Your task to perform on an android device: Add "macbook pro 13 inch" to the cart on bestbuy.com, then select checkout. Image 0: 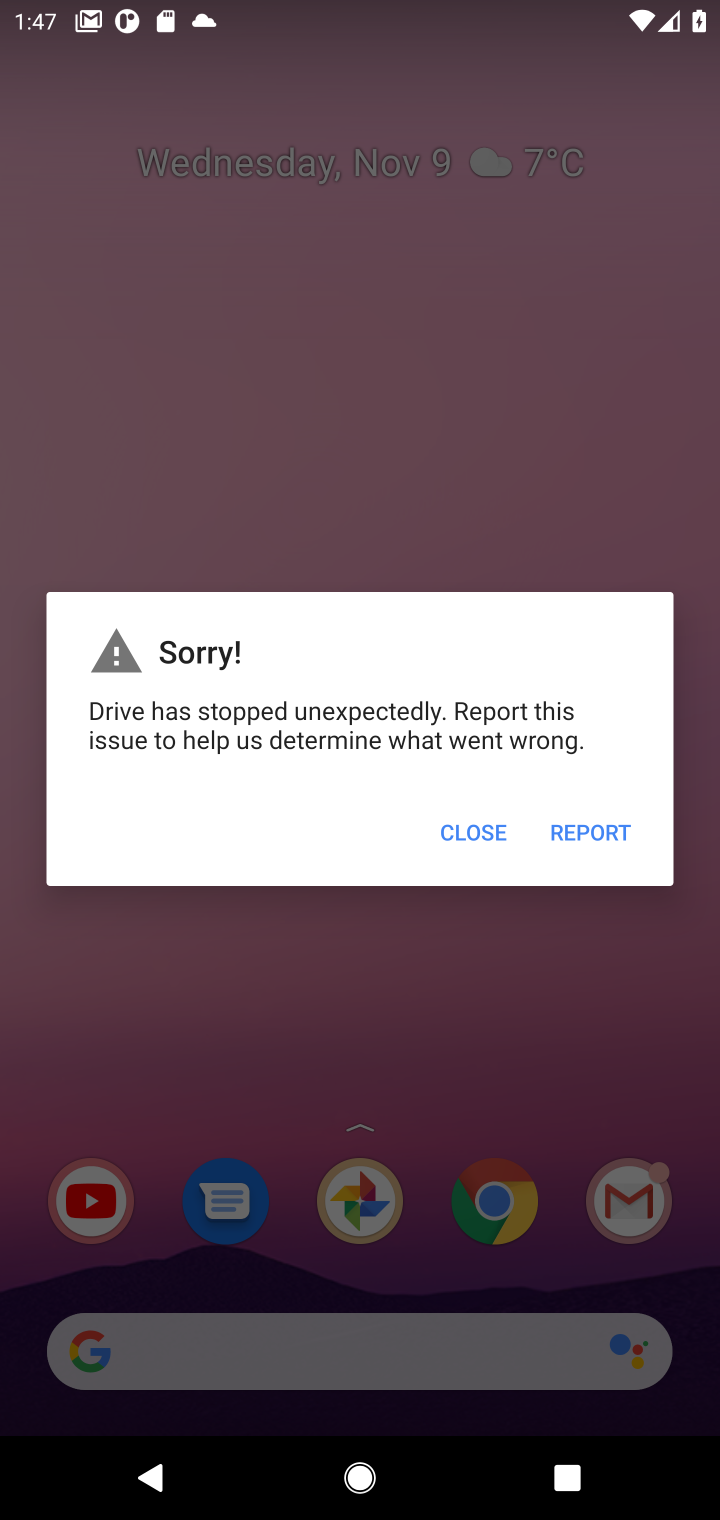
Step 0: press home button
Your task to perform on an android device: Add "macbook pro 13 inch" to the cart on bestbuy.com, then select checkout. Image 1: 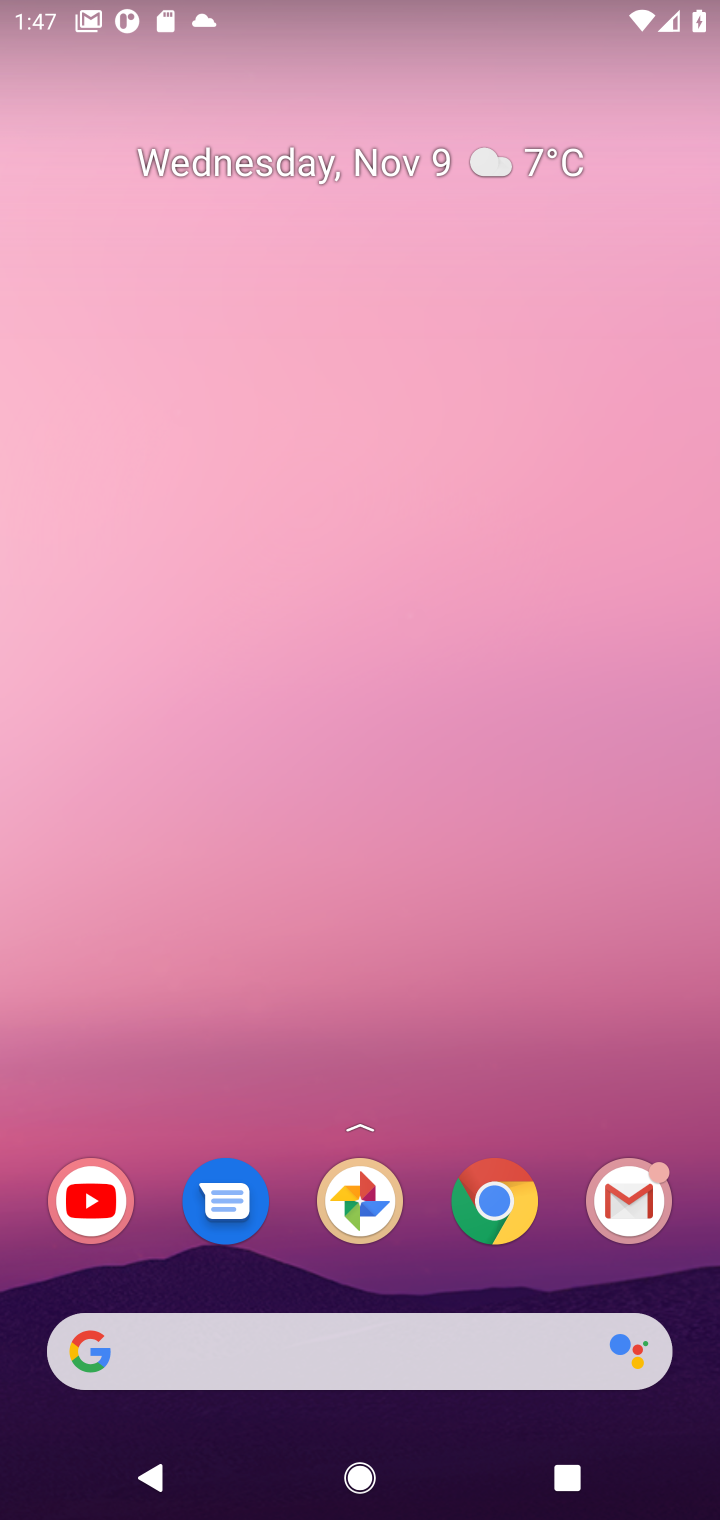
Step 1: click (299, 1352)
Your task to perform on an android device: Add "macbook pro 13 inch" to the cart on bestbuy.com, then select checkout. Image 2: 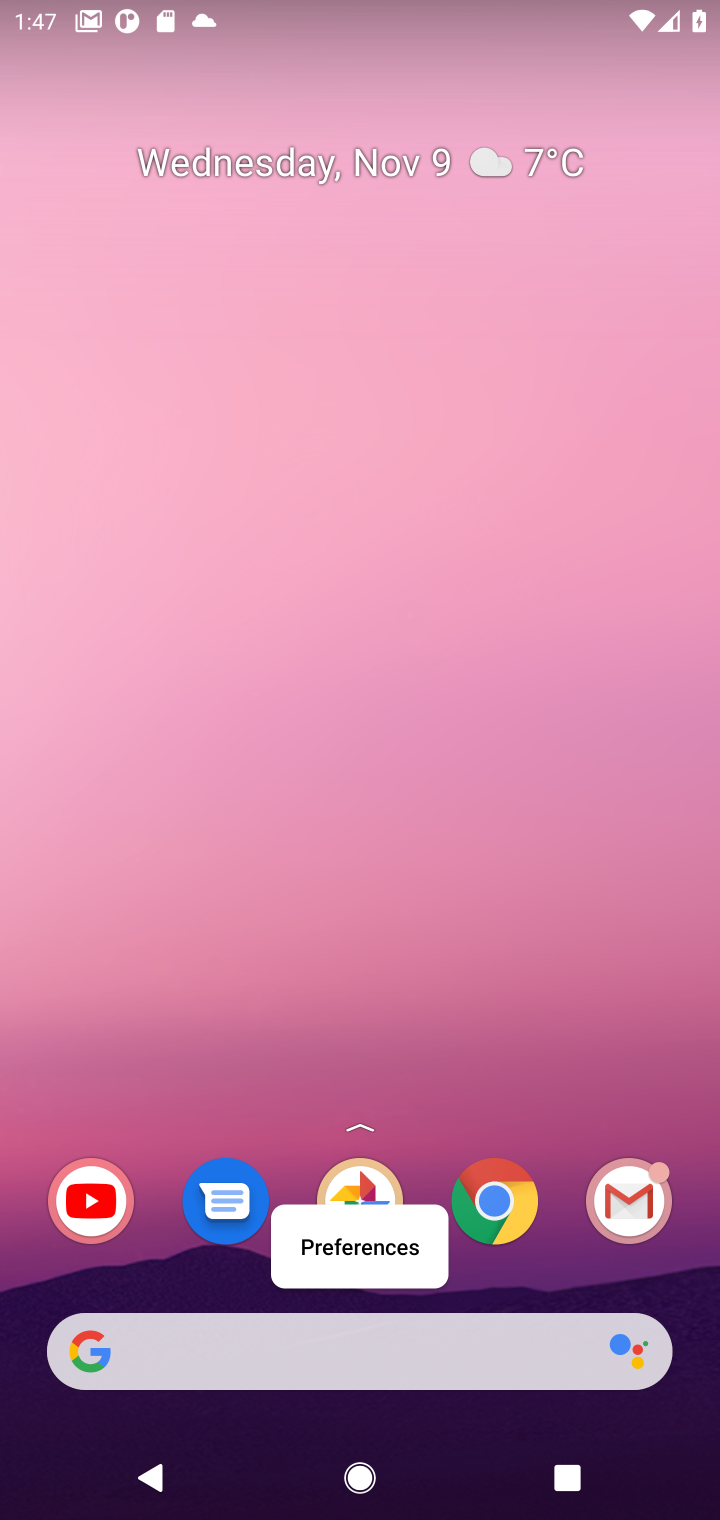
Step 2: click (351, 1362)
Your task to perform on an android device: Add "macbook pro 13 inch" to the cart on bestbuy.com, then select checkout. Image 3: 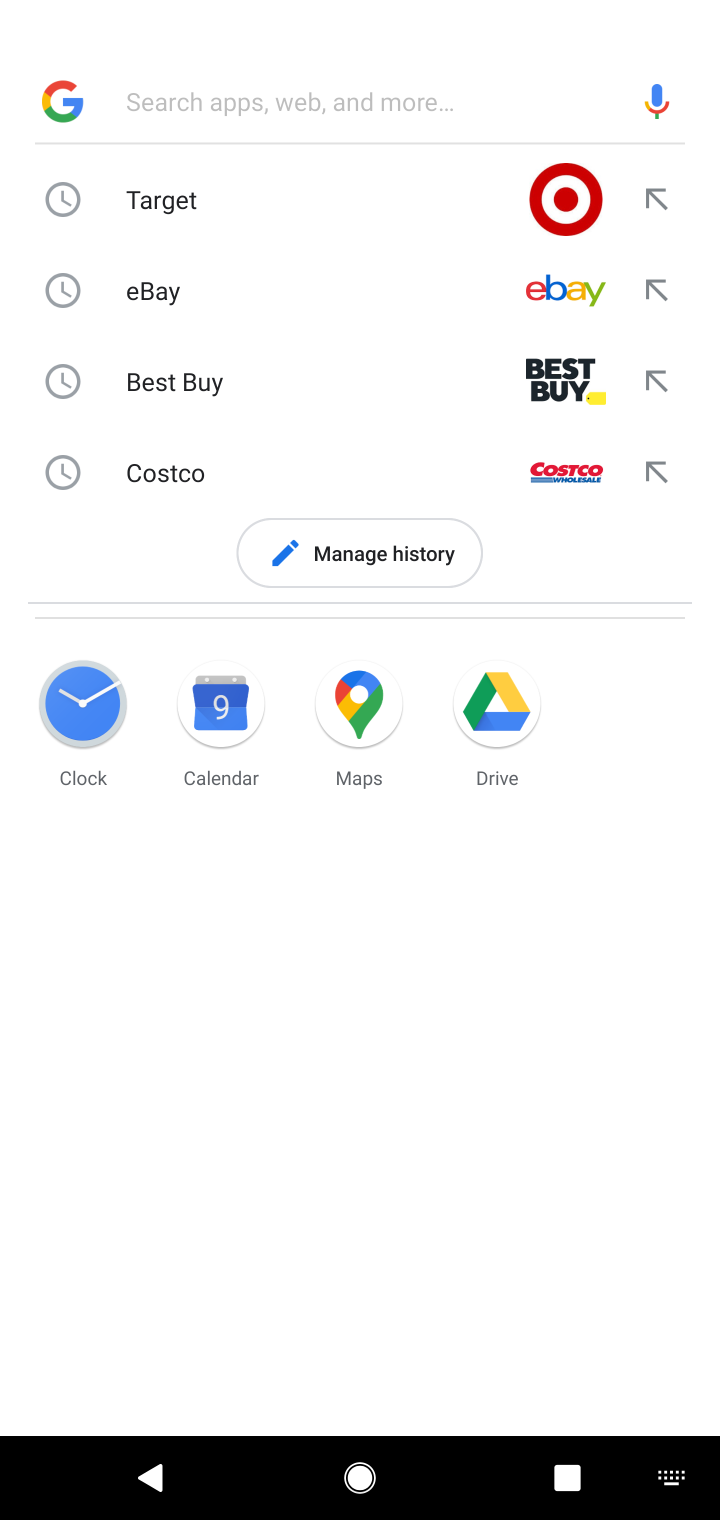
Step 3: type "bestbuy.com"
Your task to perform on an android device: Add "macbook pro 13 inch" to the cart on bestbuy.com, then select checkout. Image 4: 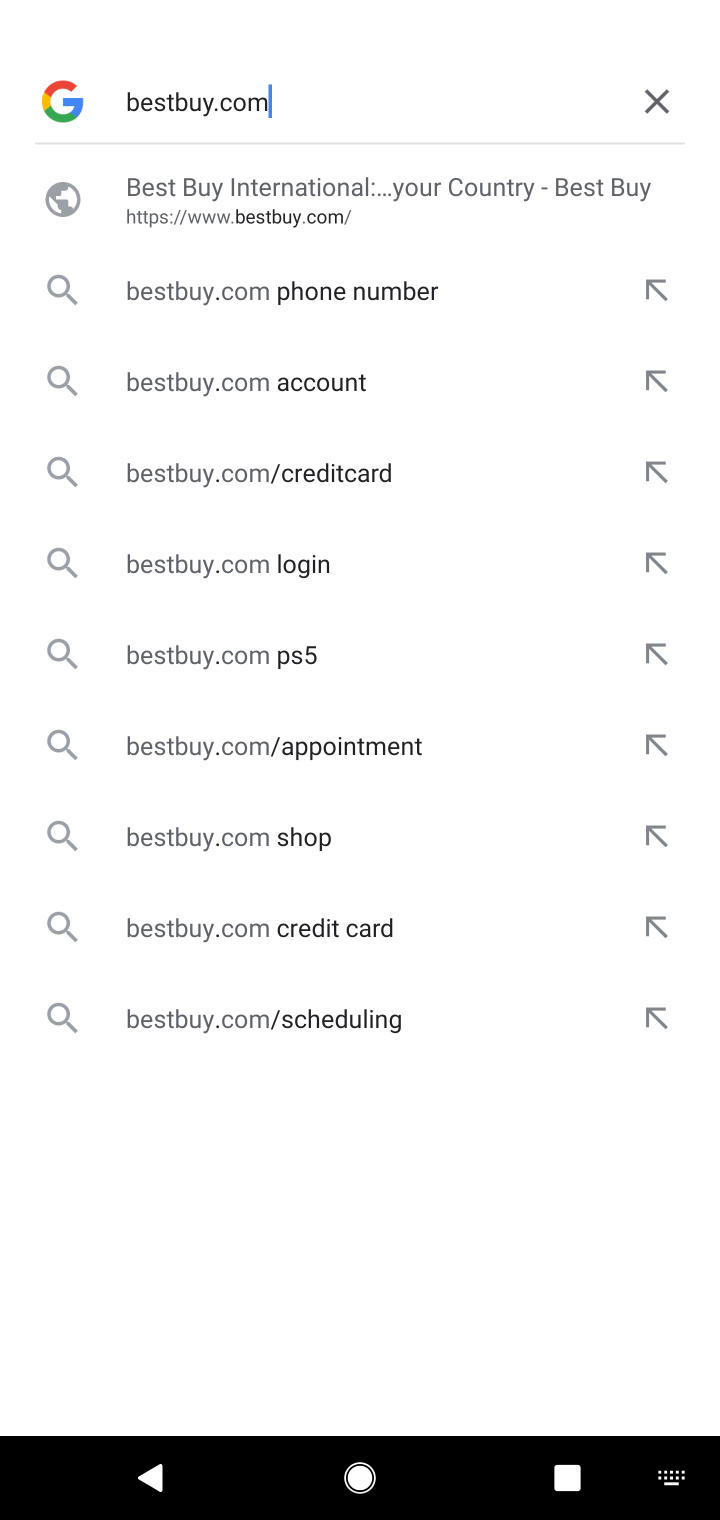
Step 4: click (228, 211)
Your task to perform on an android device: Add "macbook pro 13 inch" to the cart on bestbuy.com, then select checkout. Image 5: 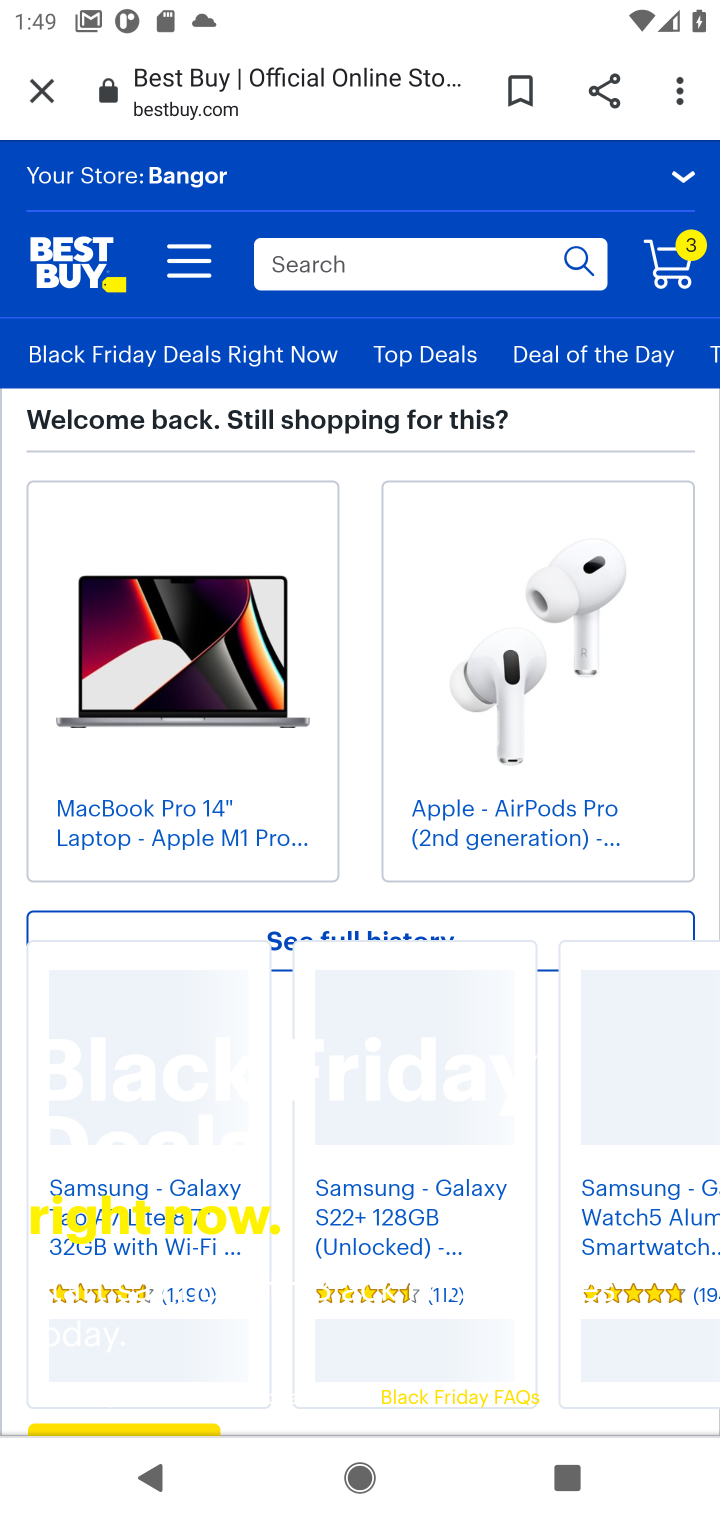
Step 5: click (341, 263)
Your task to perform on an android device: Add "macbook pro 13 inch" to the cart on bestbuy.com, then select checkout. Image 6: 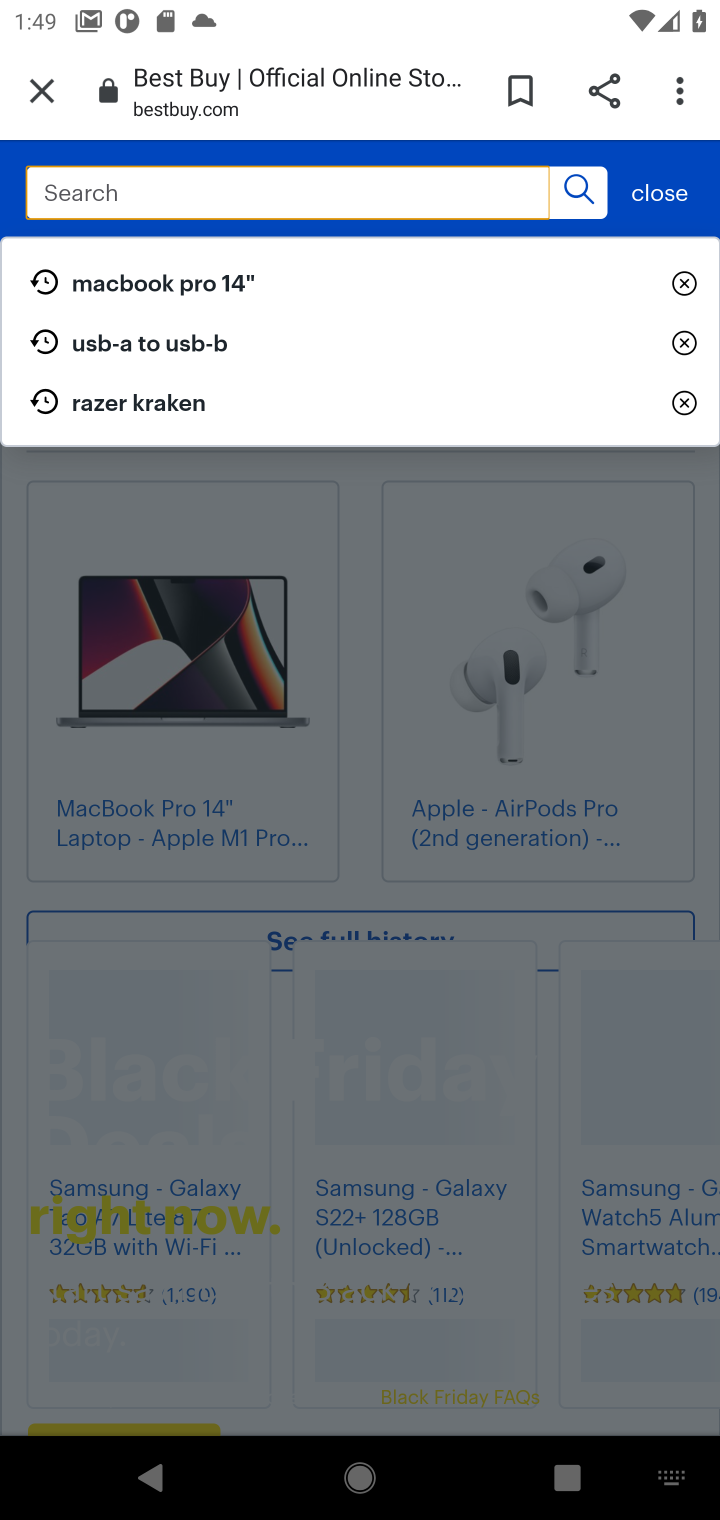
Step 6: type "macbook pro 13 inch"
Your task to perform on an android device: Add "macbook pro 13 inch" to the cart on bestbuy.com, then select checkout. Image 7: 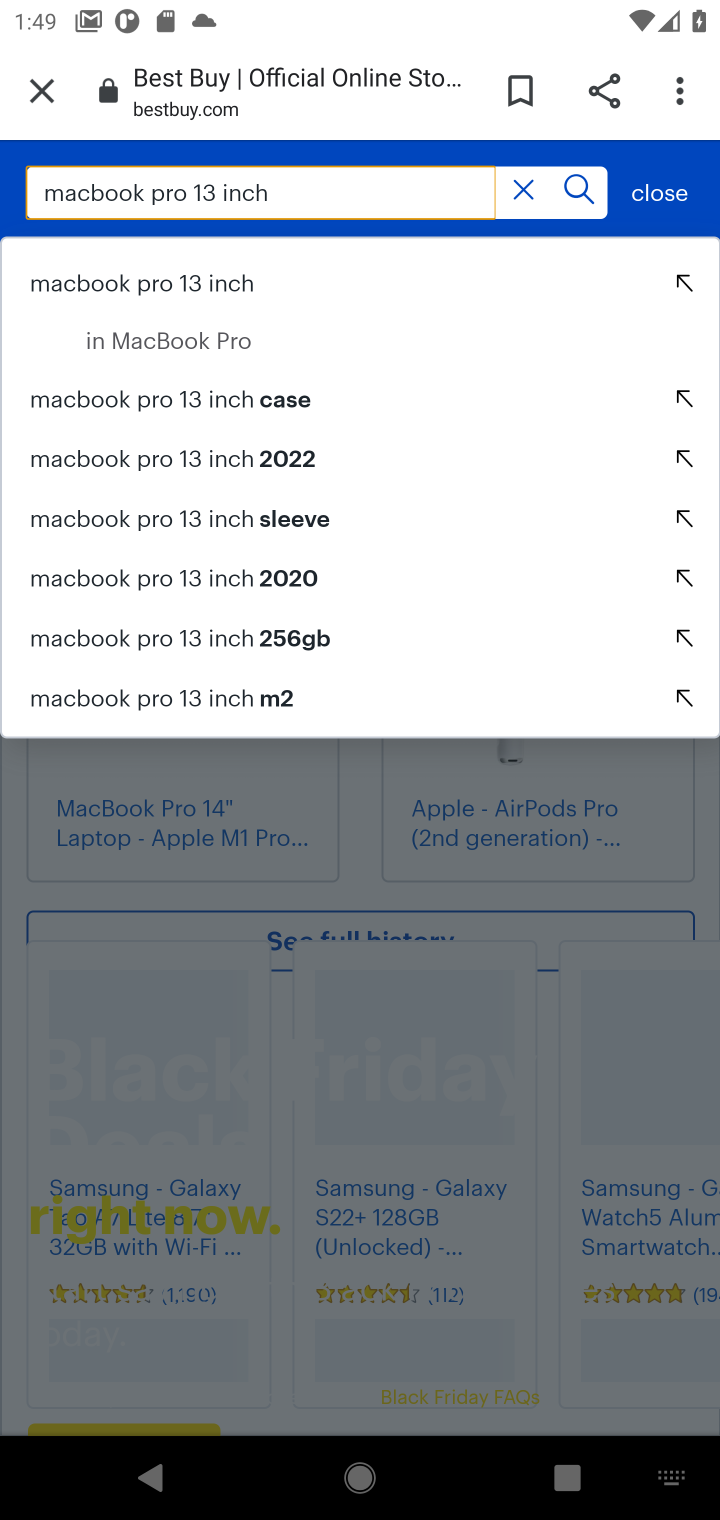
Step 7: click (200, 279)
Your task to perform on an android device: Add "macbook pro 13 inch" to the cart on bestbuy.com, then select checkout. Image 8: 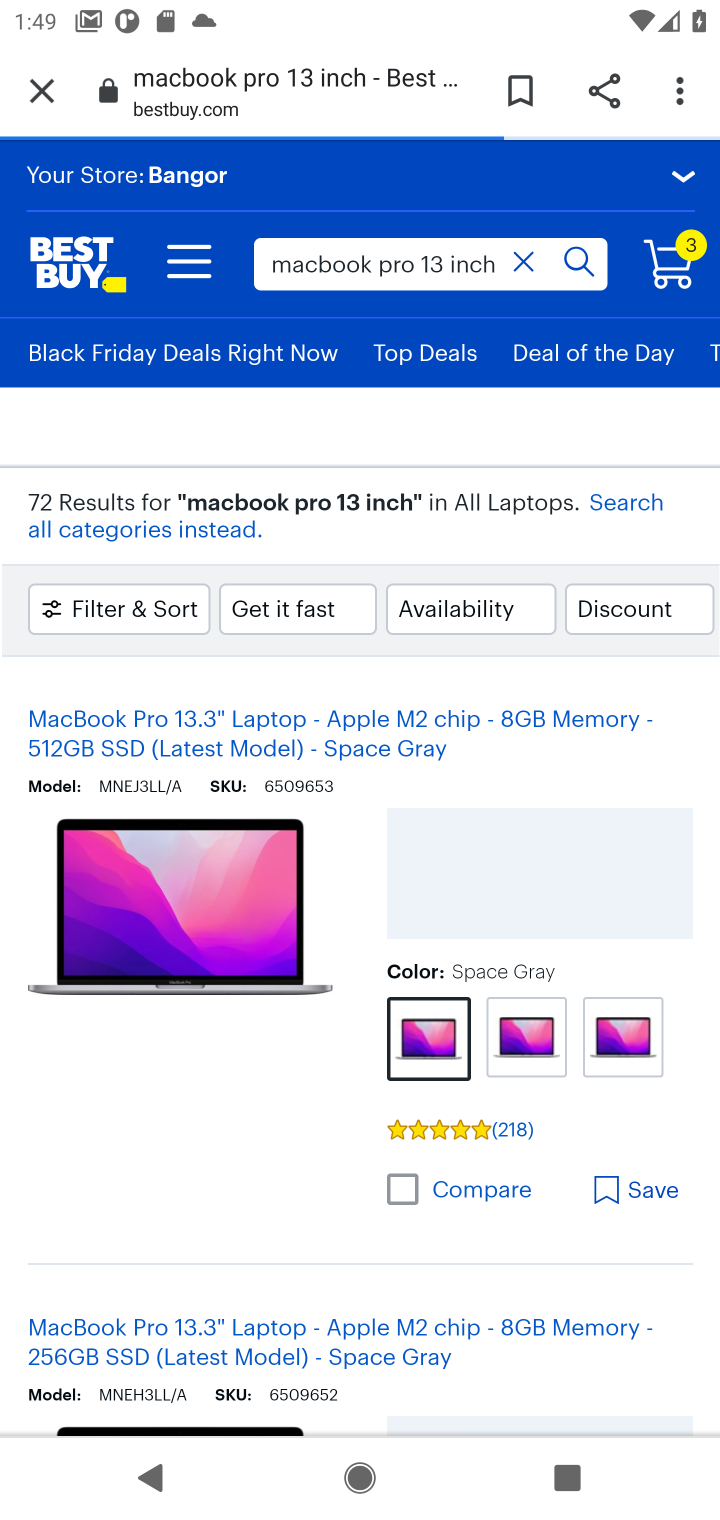
Step 8: click (446, 838)
Your task to perform on an android device: Add "macbook pro 13 inch" to the cart on bestbuy.com, then select checkout. Image 9: 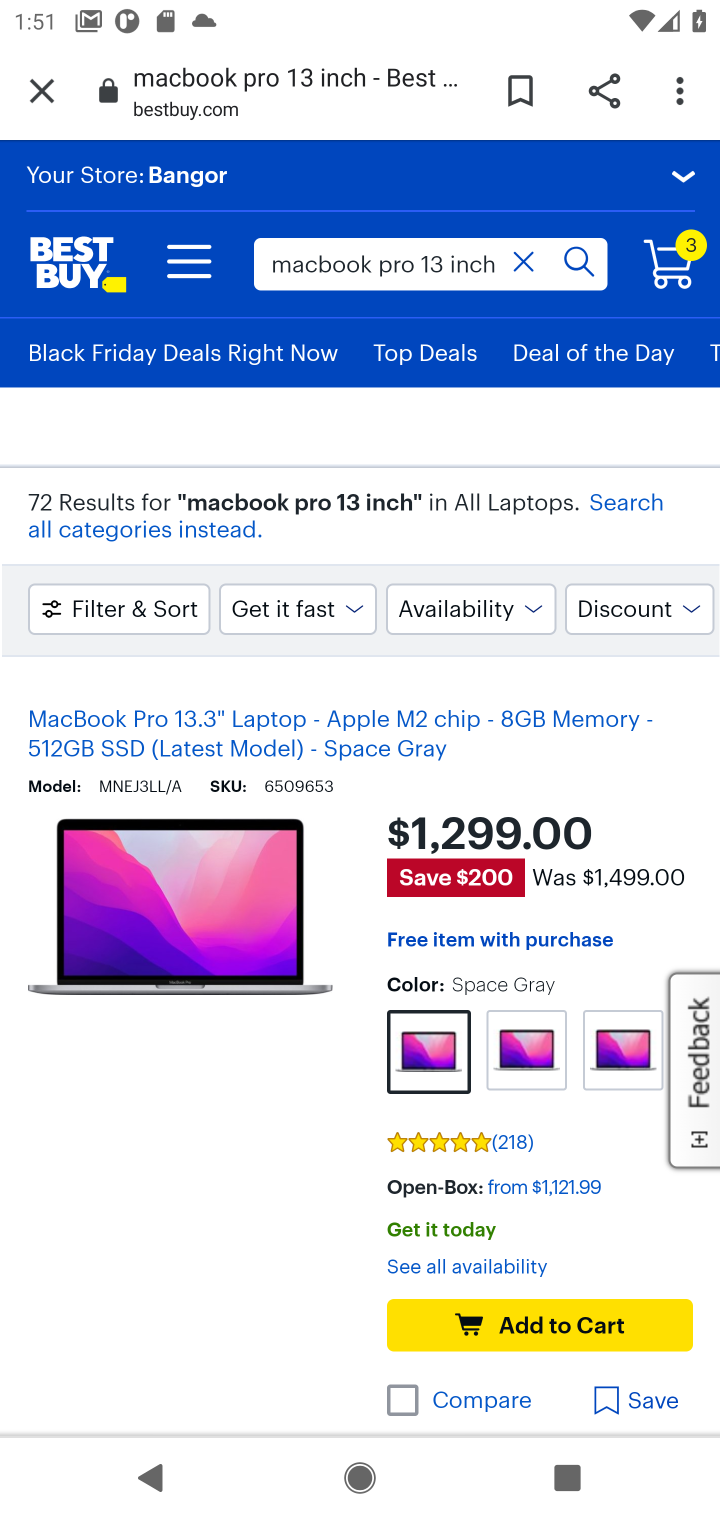
Step 9: click (446, 838)
Your task to perform on an android device: Add "macbook pro 13 inch" to the cart on bestbuy.com, then select checkout. Image 10: 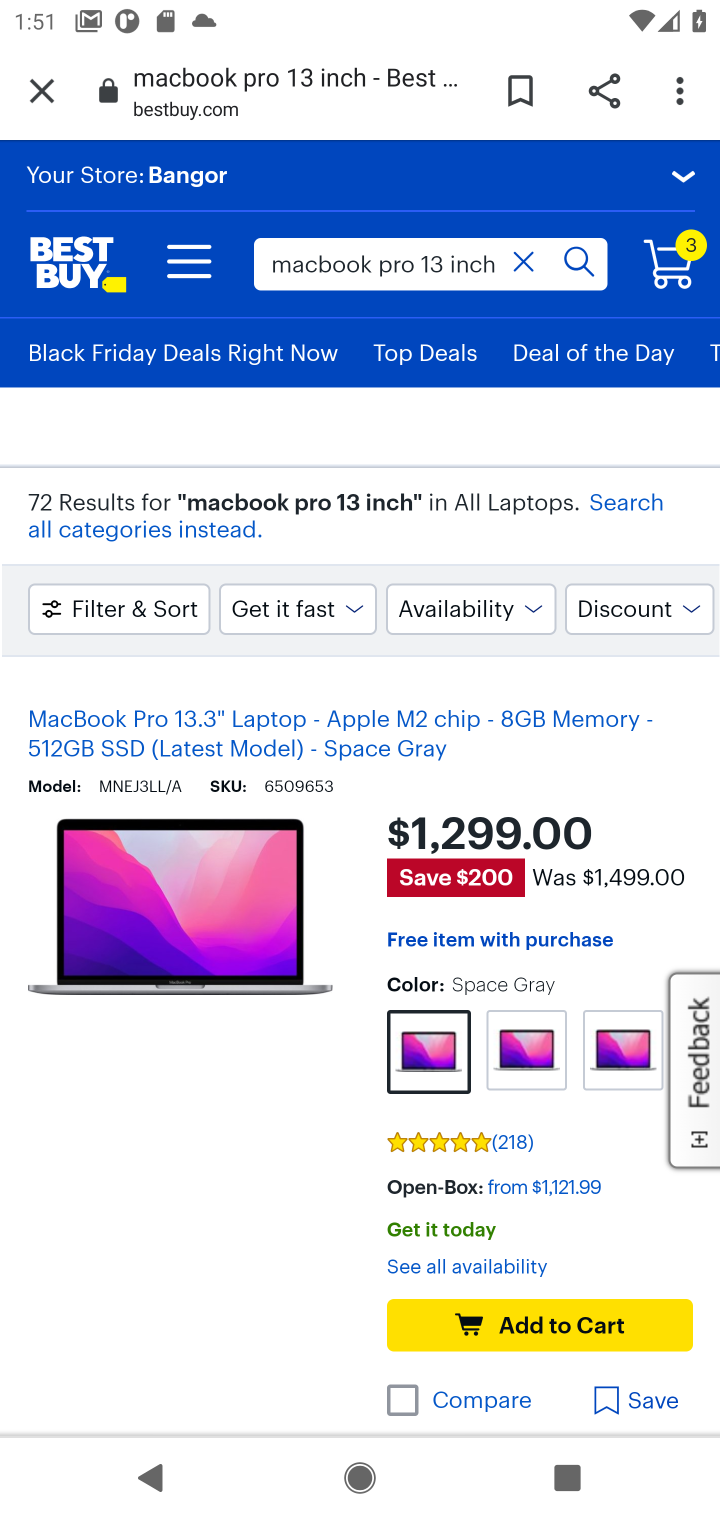
Step 10: click (535, 1332)
Your task to perform on an android device: Add "macbook pro 13 inch" to the cart on bestbuy.com, then select checkout. Image 11: 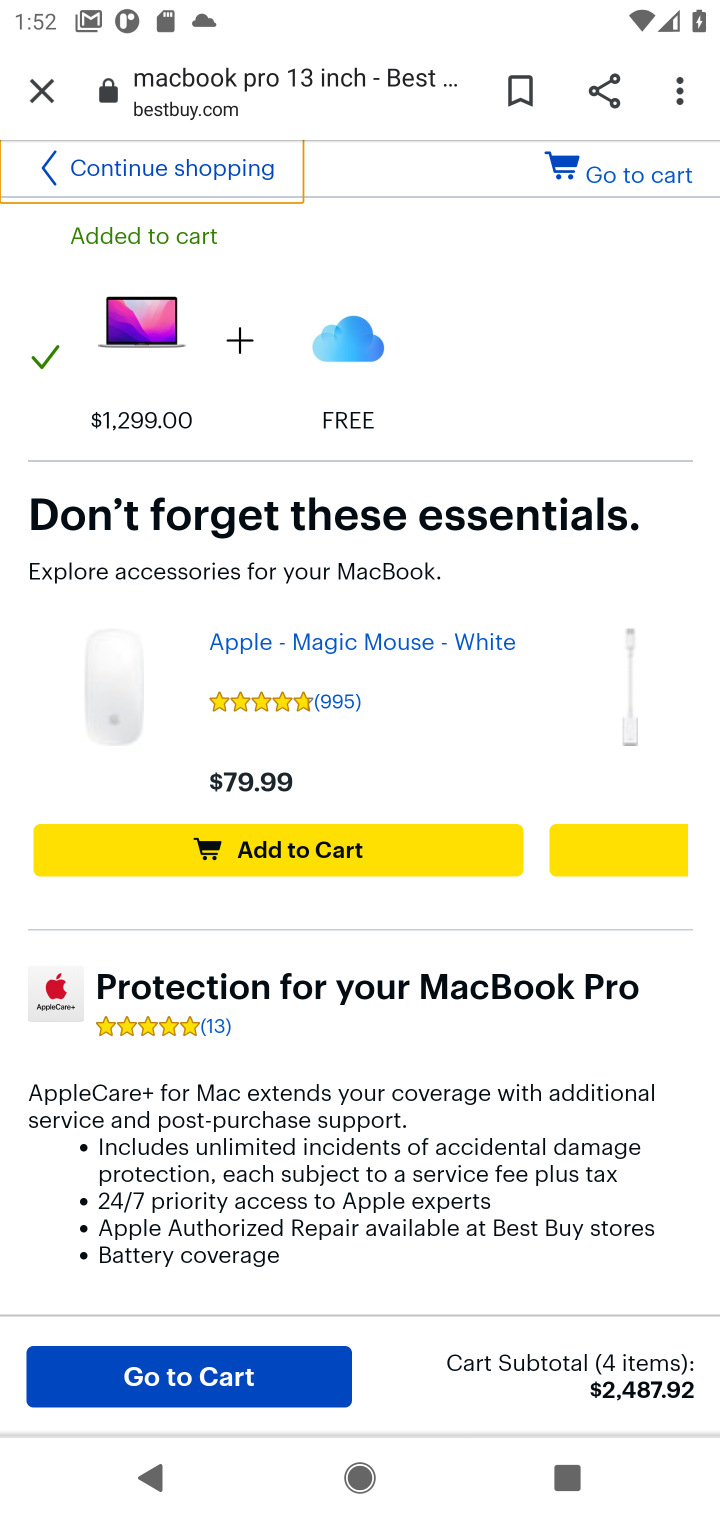
Step 11: click (161, 1386)
Your task to perform on an android device: Add "macbook pro 13 inch" to the cart on bestbuy.com, then select checkout. Image 12: 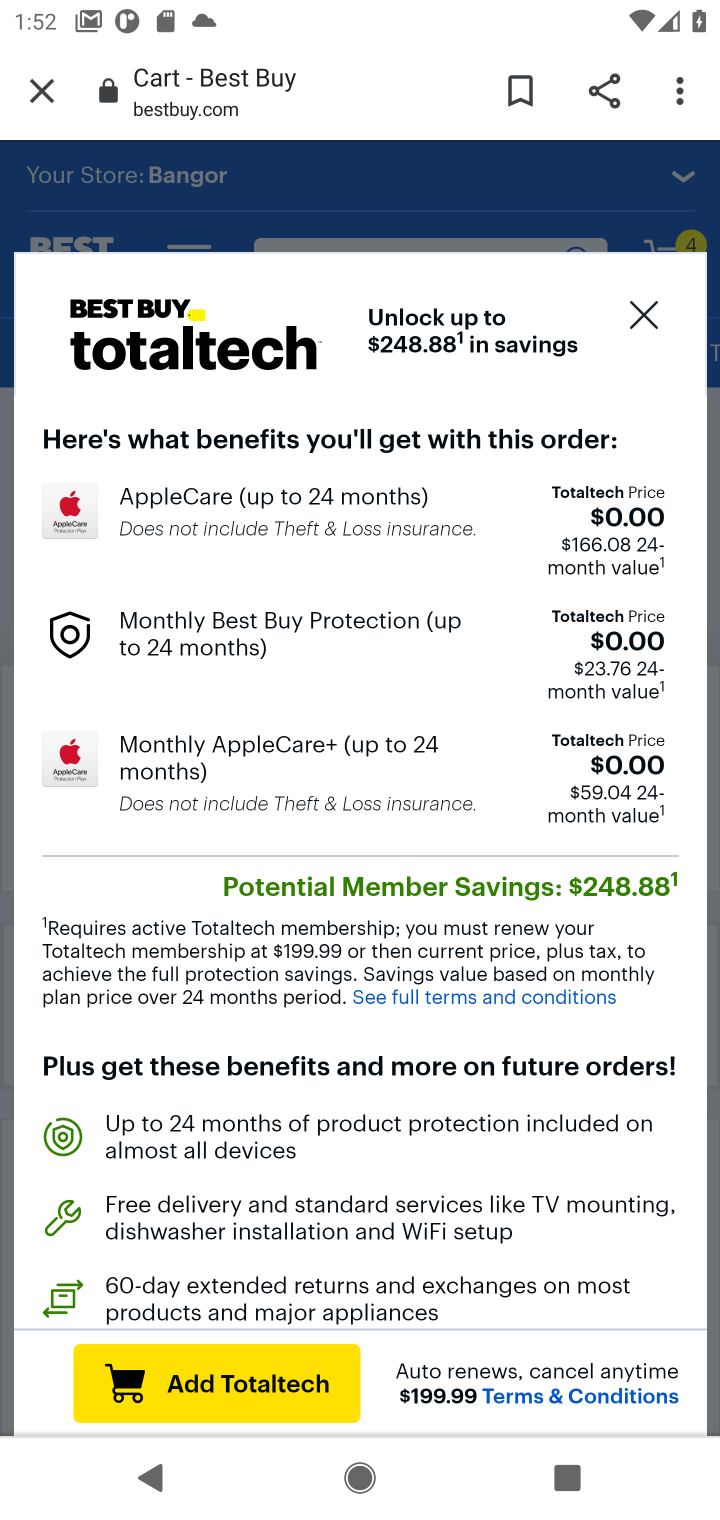
Step 12: click (637, 311)
Your task to perform on an android device: Add "macbook pro 13 inch" to the cart on bestbuy.com, then select checkout. Image 13: 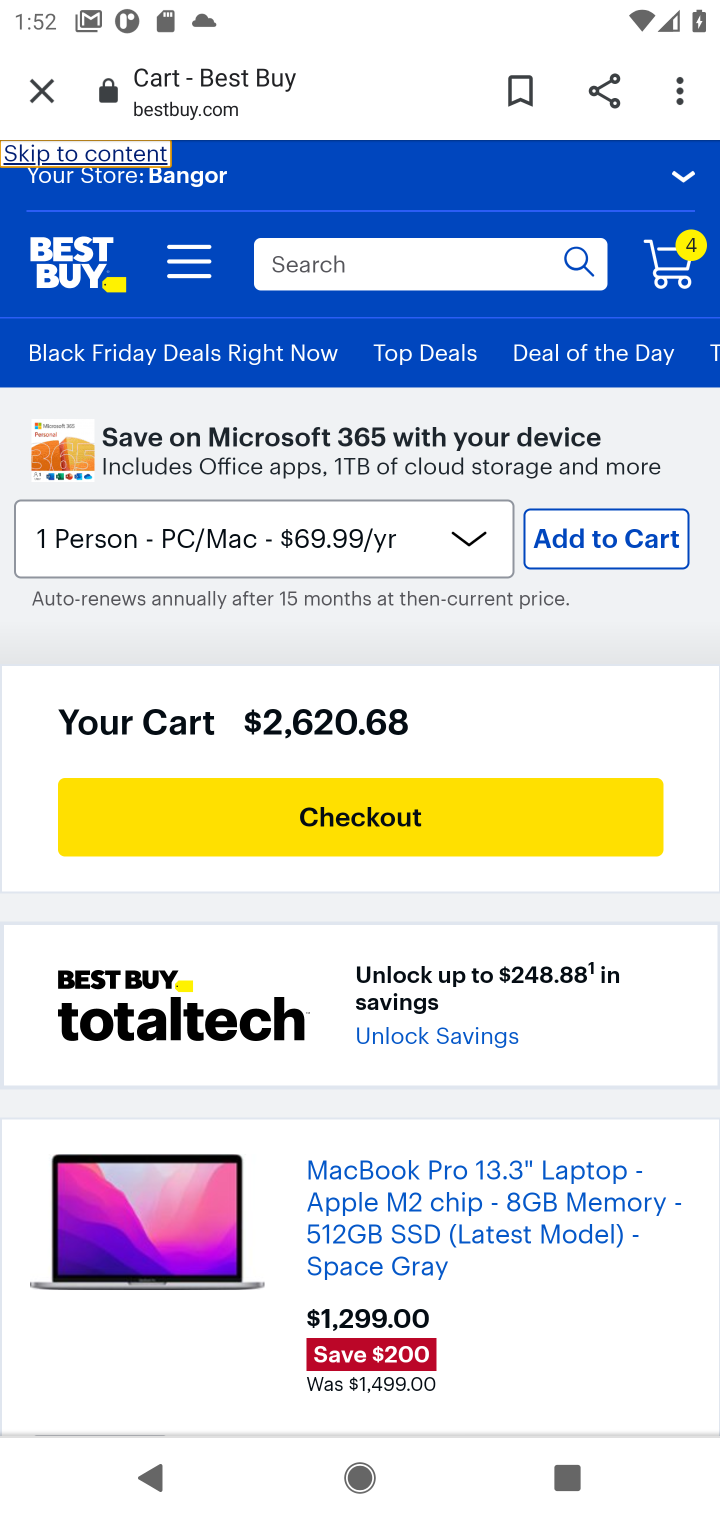
Step 13: click (356, 826)
Your task to perform on an android device: Add "macbook pro 13 inch" to the cart on bestbuy.com, then select checkout. Image 14: 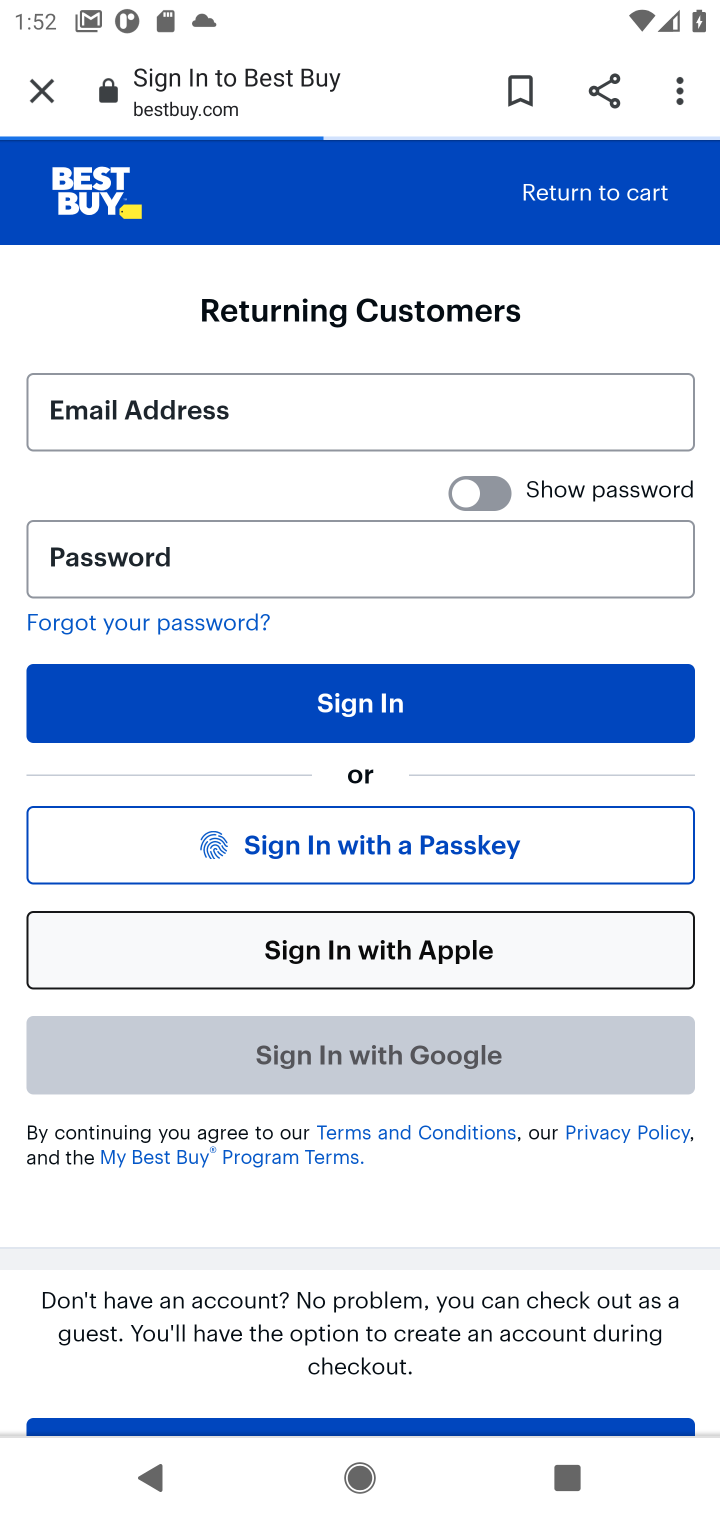
Step 14: task complete